Your task to perform on an android device: manage bookmarks in the chrome app Image 0: 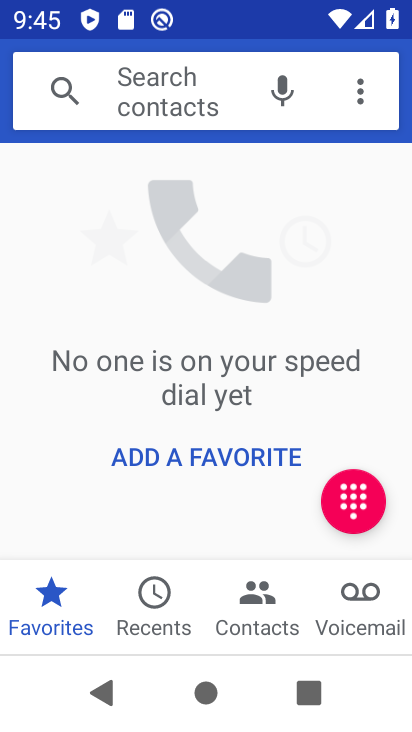
Step 0: press home button
Your task to perform on an android device: manage bookmarks in the chrome app Image 1: 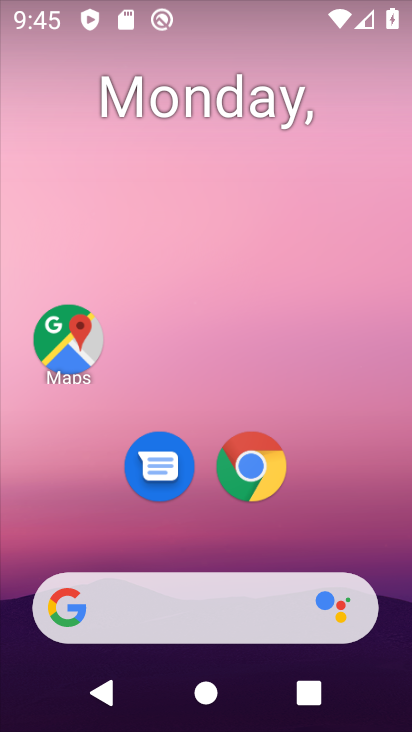
Step 1: click (252, 468)
Your task to perform on an android device: manage bookmarks in the chrome app Image 2: 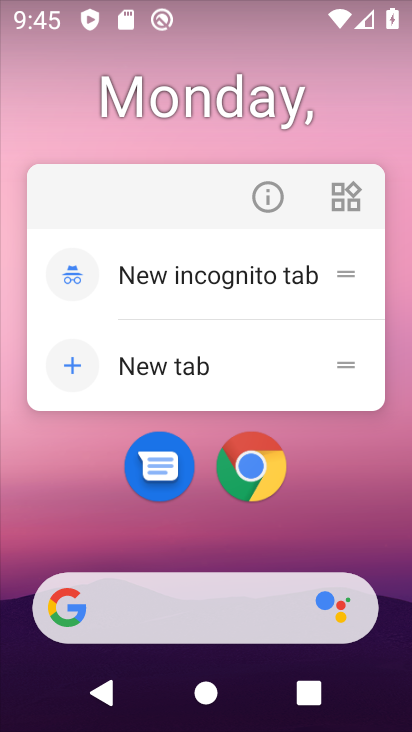
Step 2: click (274, 197)
Your task to perform on an android device: manage bookmarks in the chrome app Image 3: 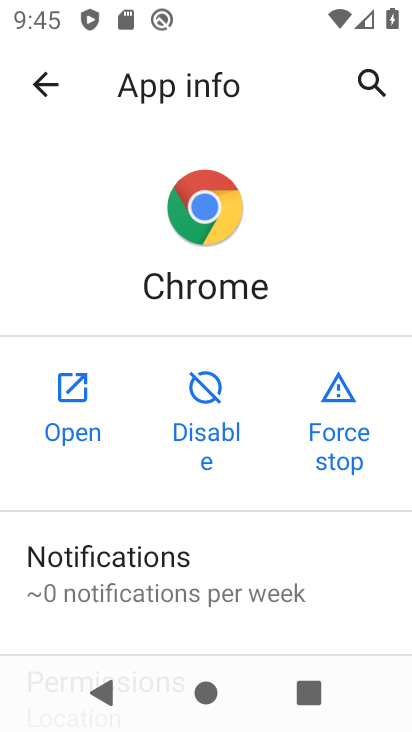
Step 3: click (78, 411)
Your task to perform on an android device: manage bookmarks in the chrome app Image 4: 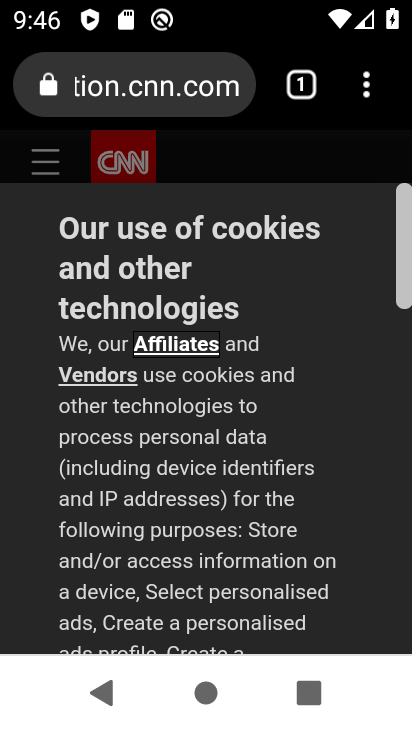
Step 4: click (365, 90)
Your task to perform on an android device: manage bookmarks in the chrome app Image 5: 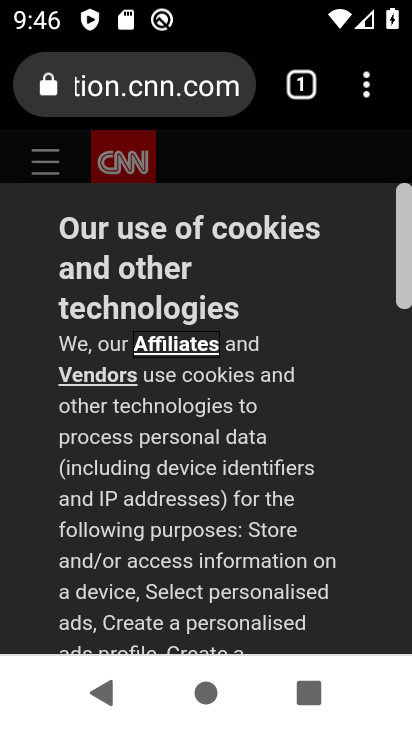
Step 5: click (369, 95)
Your task to perform on an android device: manage bookmarks in the chrome app Image 6: 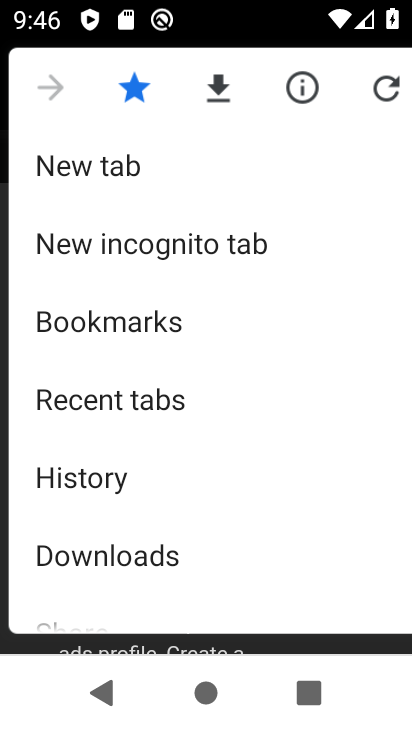
Step 6: click (129, 333)
Your task to perform on an android device: manage bookmarks in the chrome app Image 7: 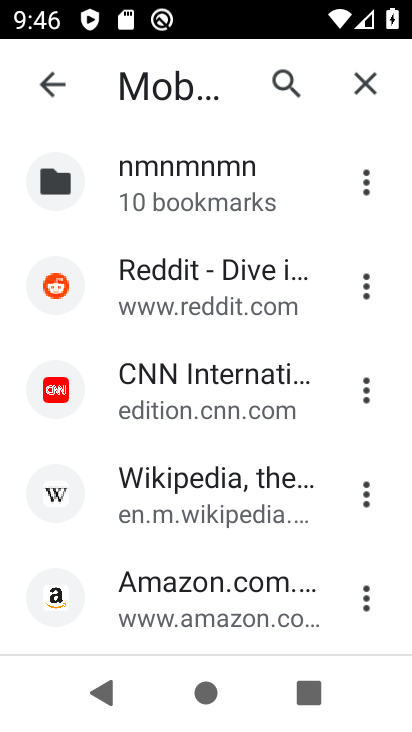
Step 7: task complete